Your task to perform on an android device: Go to ESPN.com Image 0: 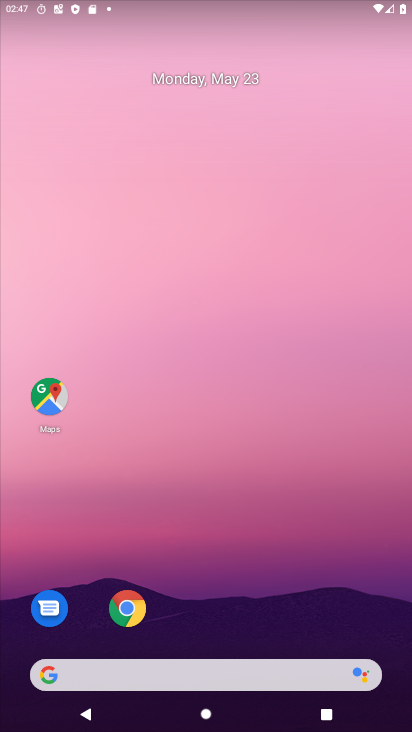
Step 0: click (122, 602)
Your task to perform on an android device: Go to ESPN.com Image 1: 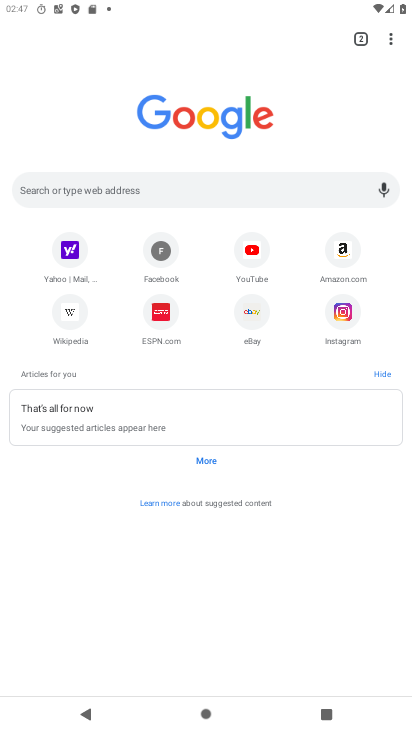
Step 1: click (157, 326)
Your task to perform on an android device: Go to ESPN.com Image 2: 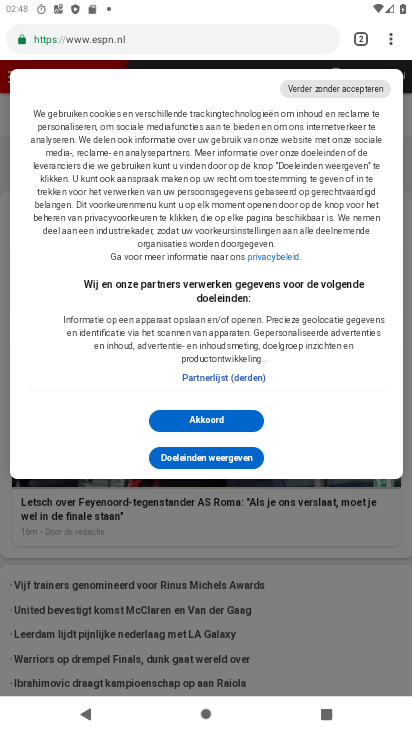
Step 2: task complete